Your task to perform on an android device: set default search engine in the chrome app Image 0: 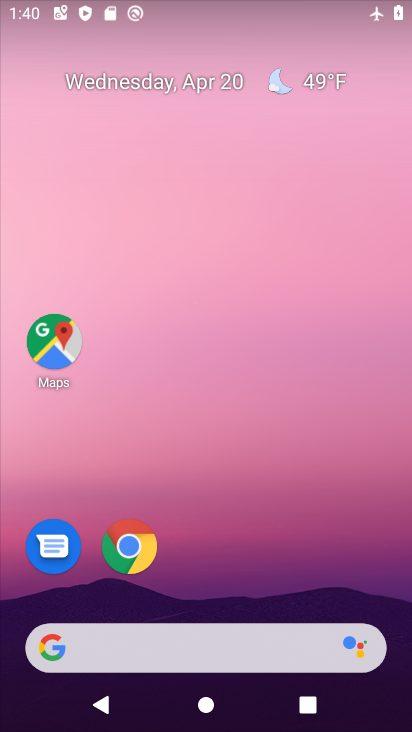
Step 0: click (320, 178)
Your task to perform on an android device: set default search engine in the chrome app Image 1: 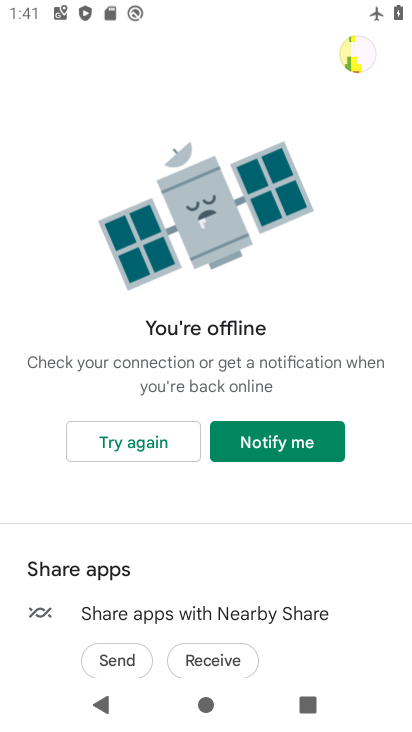
Step 1: press home button
Your task to perform on an android device: set default search engine in the chrome app Image 2: 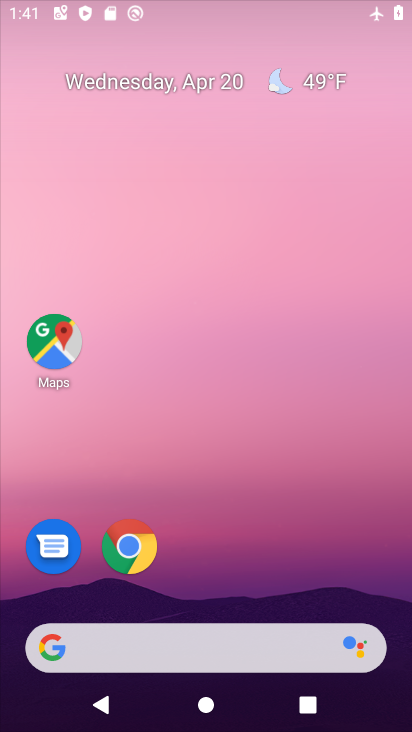
Step 2: drag from (269, 376) to (287, 257)
Your task to perform on an android device: set default search engine in the chrome app Image 3: 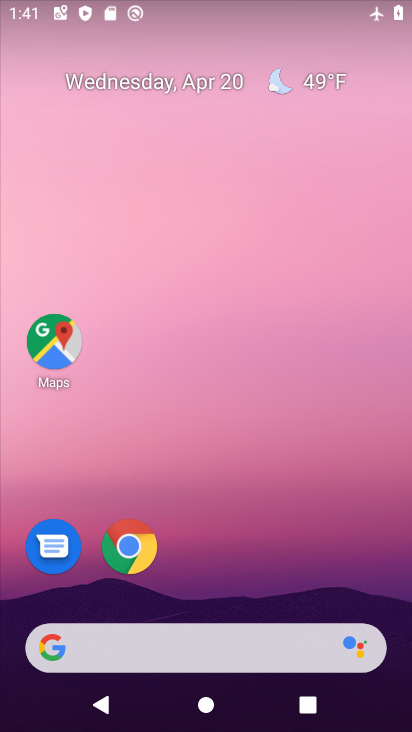
Step 3: drag from (231, 588) to (345, 144)
Your task to perform on an android device: set default search engine in the chrome app Image 4: 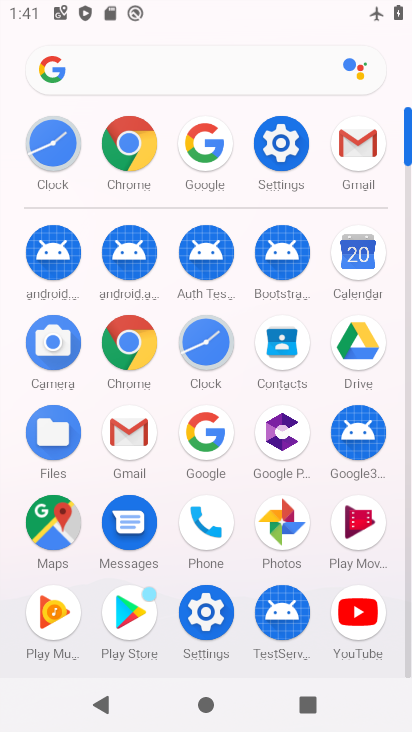
Step 4: click (126, 141)
Your task to perform on an android device: set default search engine in the chrome app Image 5: 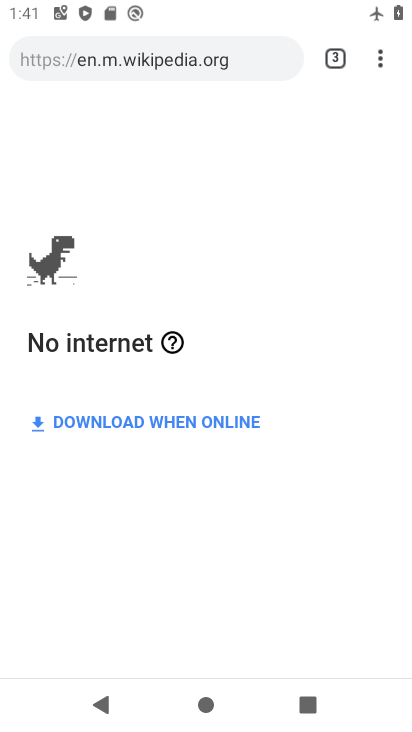
Step 5: click (385, 50)
Your task to perform on an android device: set default search engine in the chrome app Image 6: 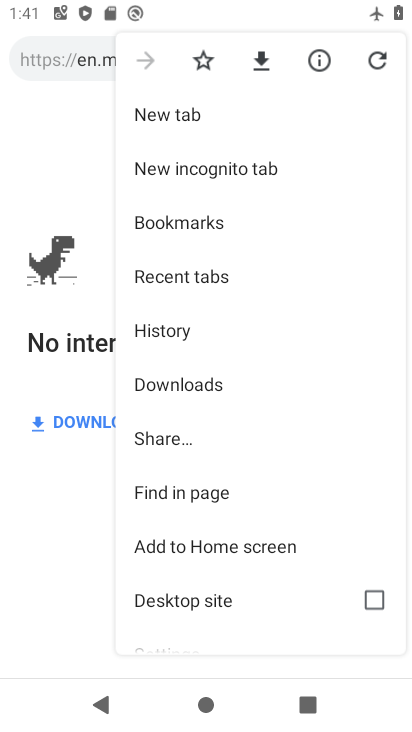
Step 6: drag from (201, 570) to (290, 223)
Your task to perform on an android device: set default search engine in the chrome app Image 7: 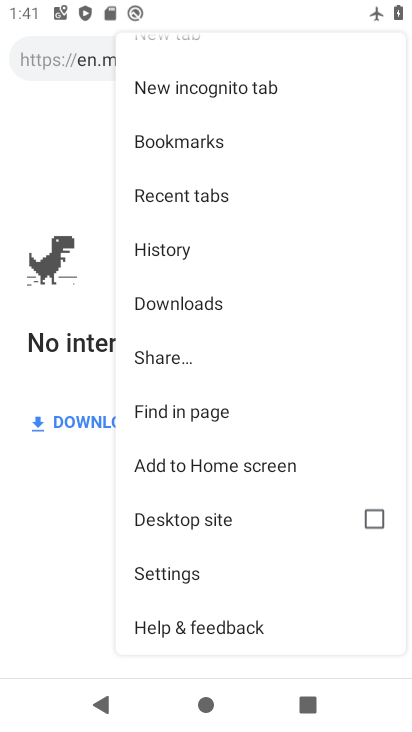
Step 7: click (191, 573)
Your task to perform on an android device: set default search engine in the chrome app Image 8: 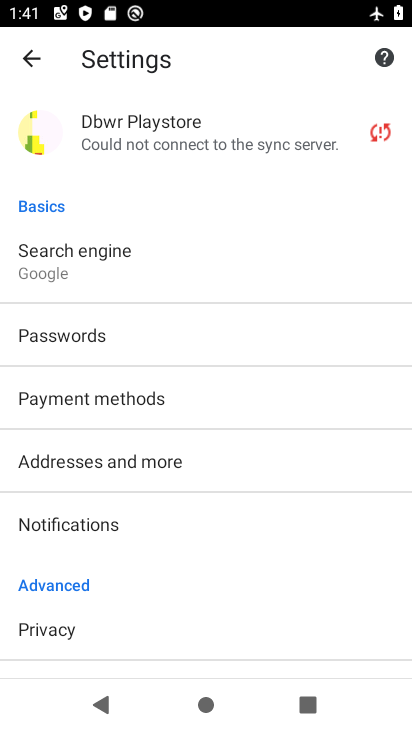
Step 8: drag from (178, 565) to (225, 489)
Your task to perform on an android device: set default search engine in the chrome app Image 9: 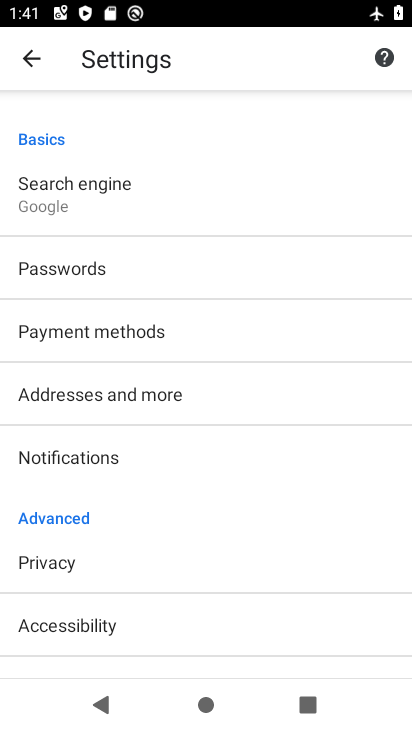
Step 9: click (174, 206)
Your task to perform on an android device: set default search engine in the chrome app Image 10: 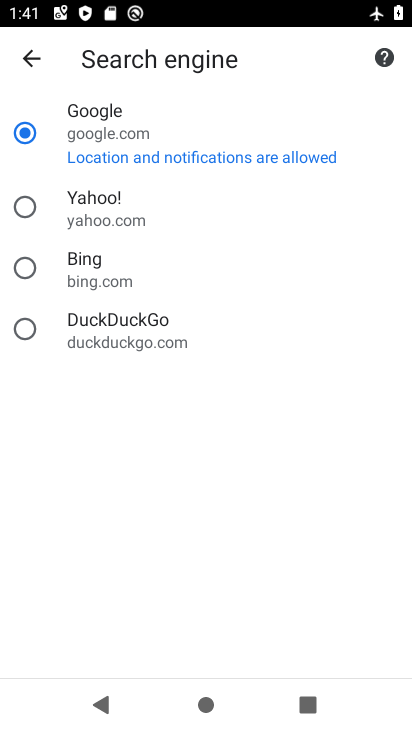
Step 10: click (90, 267)
Your task to perform on an android device: set default search engine in the chrome app Image 11: 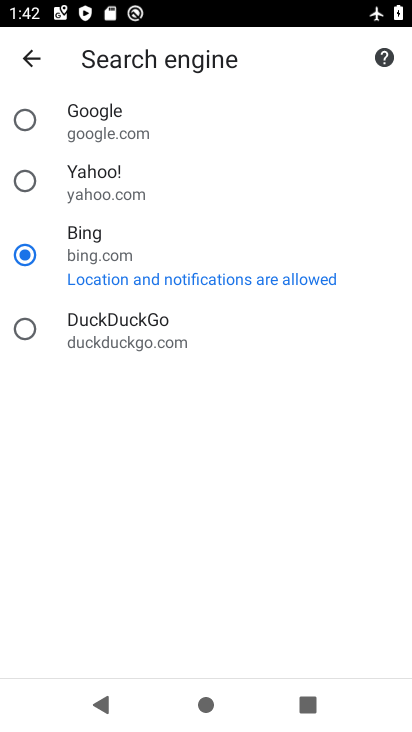
Step 11: task complete